Your task to perform on an android device: Open Google Chrome and click the shortcut for Amazon.com Image 0: 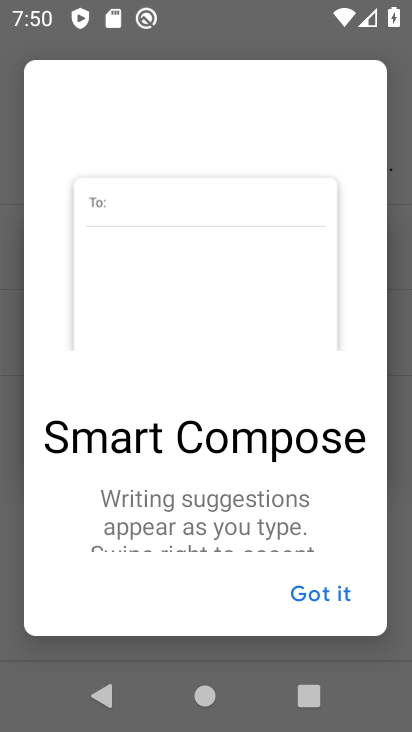
Step 0: press home button
Your task to perform on an android device: Open Google Chrome and click the shortcut for Amazon.com Image 1: 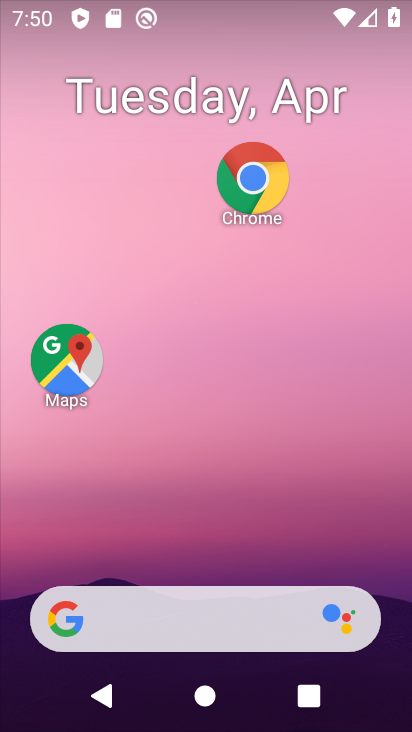
Step 1: click (250, 176)
Your task to perform on an android device: Open Google Chrome and click the shortcut for Amazon.com Image 2: 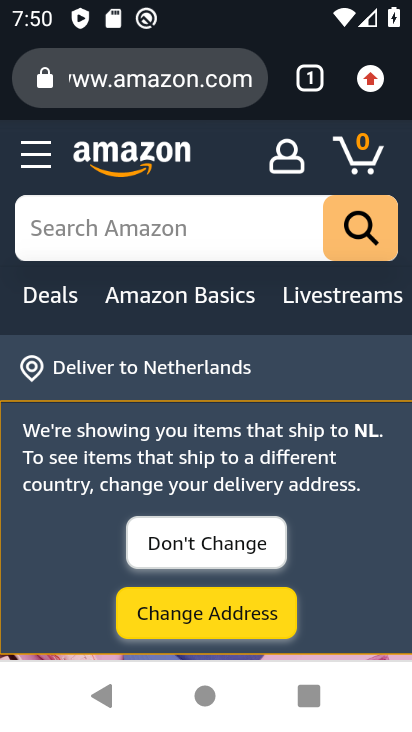
Step 2: task complete